Your task to perform on an android device: Go to network settings Image 0: 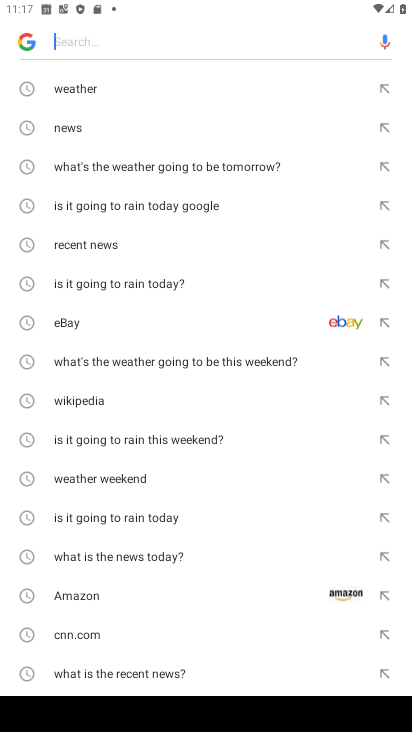
Step 0: press home button
Your task to perform on an android device: Go to network settings Image 1: 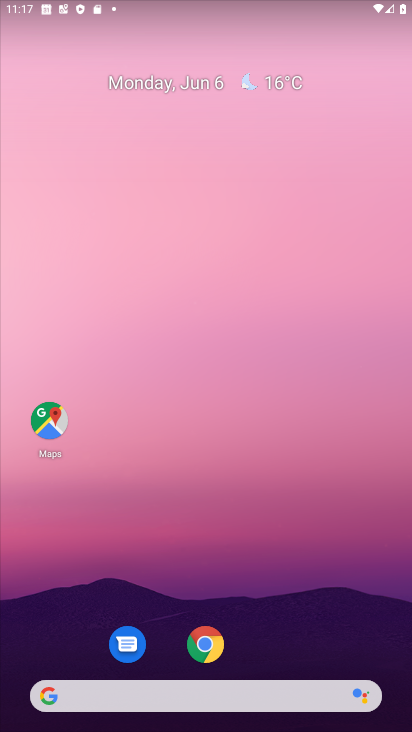
Step 1: drag from (301, 630) to (261, 141)
Your task to perform on an android device: Go to network settings Image 2: 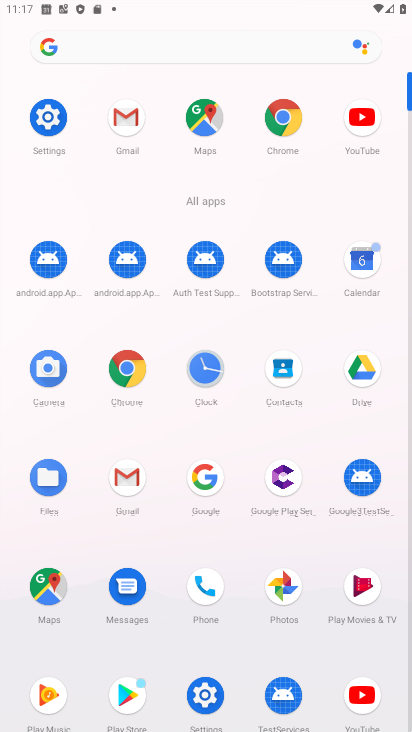
Step 2: click (63, 125)
Your task to perform on an android device: Go to network settings Image 3: 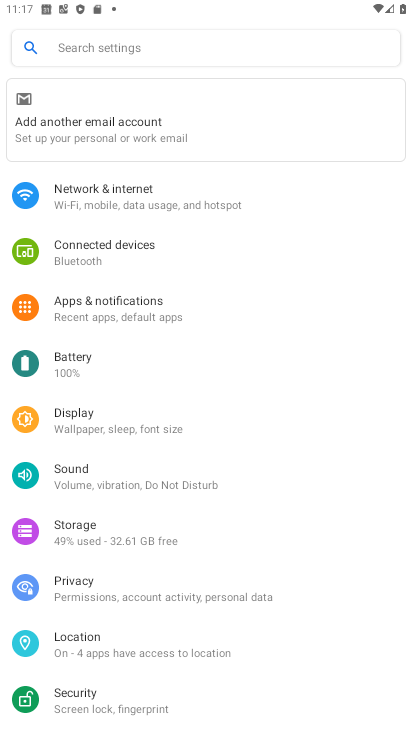
Step 3: click (103, 195)
Your task to perform on an android device: Go to network settings Image 4: 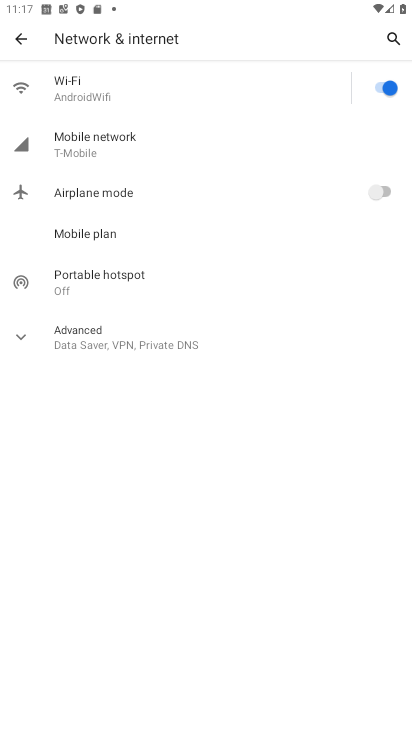
Step 4: task complete